Your task to perform on an android device: toggle improve location accuracy Image 0: 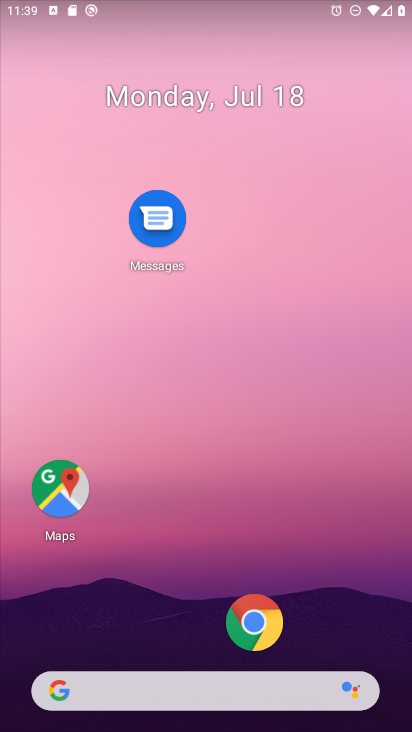
Step 0: drag from (172, 717) to (210, 205)
Your task to perform on an android device: toggle improve location accuracy Image 1: 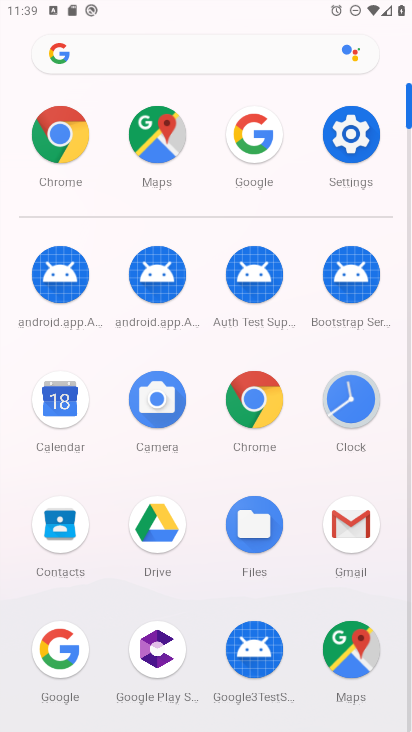
Step 1: click (357, 153)
Your task to perform on an android device: toggle improve location accuracy Image 2: 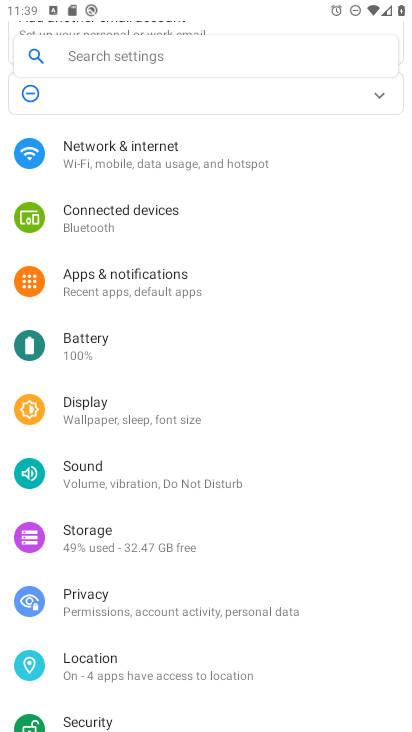
Step 2: click (119, 652)
Your task to perform on an android device: toggle improve location accuracy Image 3: 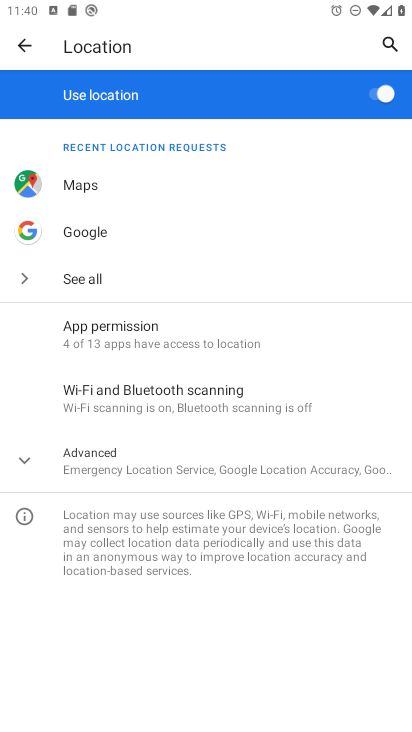
Step 3: click (320, 89)
Your task to perform on an android device: toggle improve location accuracy Image 4: 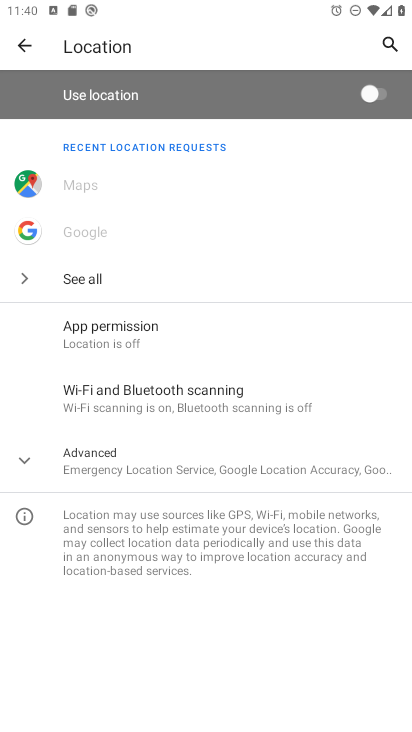
Step 4: task complete